Your task to perform on an android device: toggle wifi Image 0: 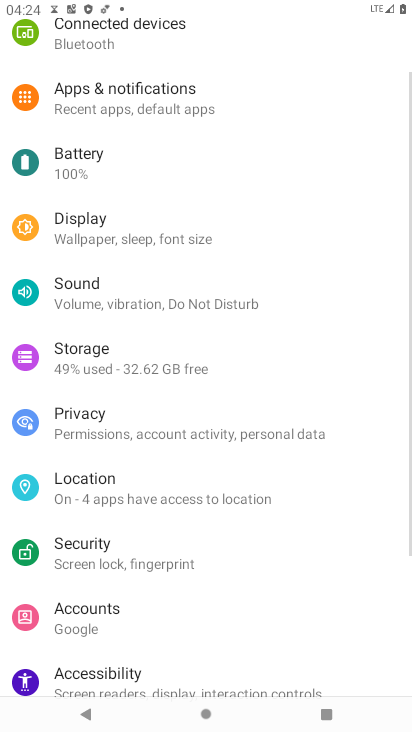
Step 0: press home button
Your task to perform on an android device: toggle wifi Image 1: 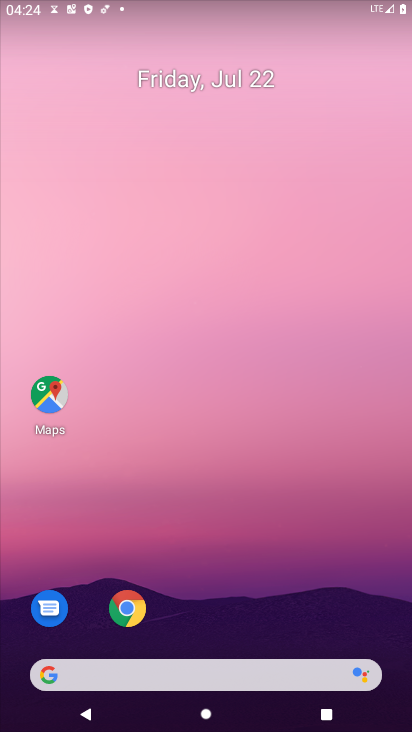
Step 1: drag from (237, 716) to (243, 147)
Your task to perform on an android device: toggle wifi Image 2: 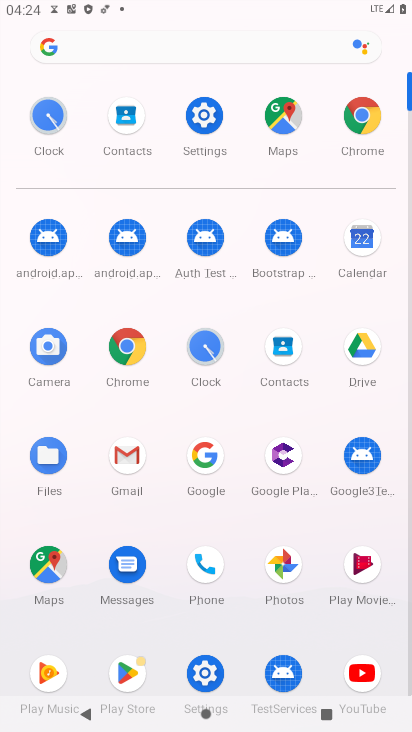
Step 2: click (202, 117)
Your task to perform on an android device: toggle wifi Image 3: 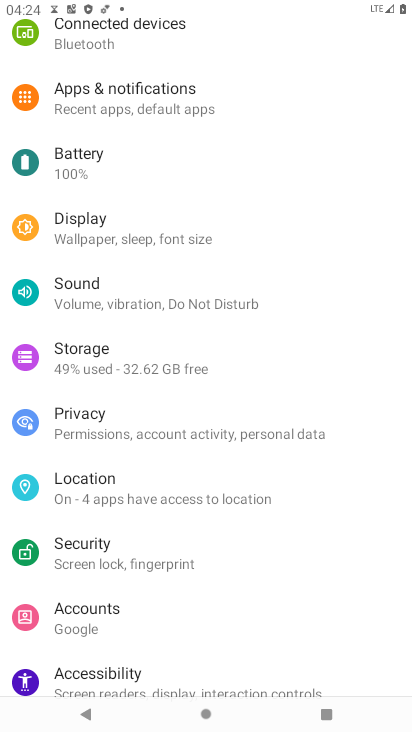
Step 3: drag from (176, 85) to (173, 454)
Your task to perform on an android device: toggle wifi Image 4: 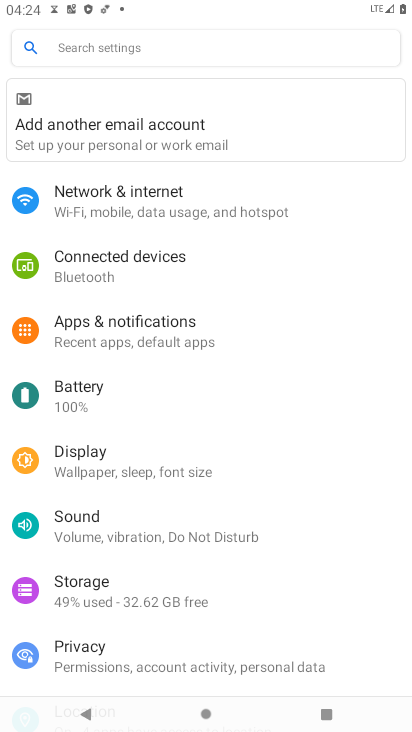
Step 4: click (156, 203)
Your task to perform on an android device: toggle wifi Image 5: 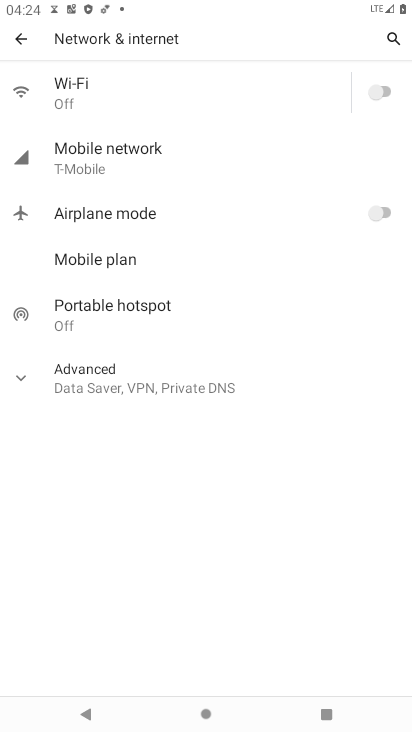
Step 5: click (386, 88)
Your task to perform on an android device: toggle wifi Image 6: 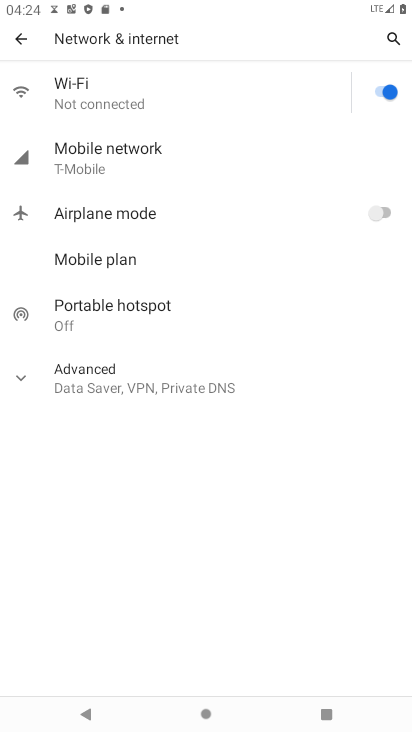
Step 6: task complete